Your task to perform on an android device: add a contact in the contacts app Image 0: 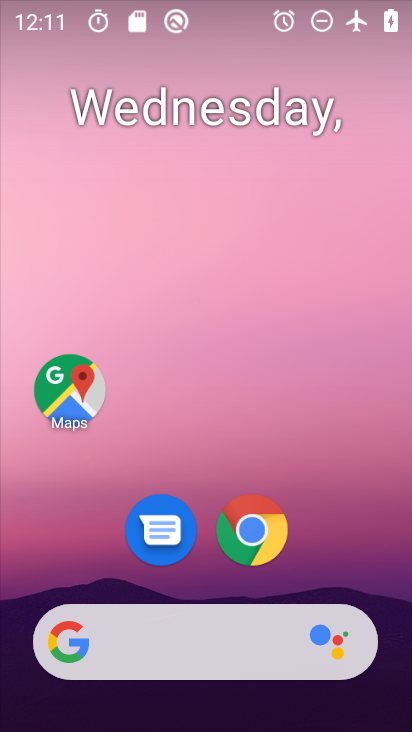
Step 0: drag from (322, 537) to (334, 59)
Your task to perform on an android device: add a contact in the contacts app Image 1: 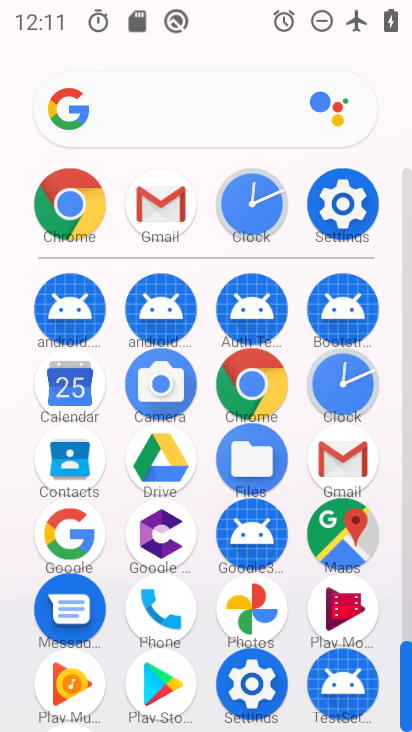
Step 1: click (74, 464)
Your task to perform on an android device: add a contact in the contacts app Image 2: 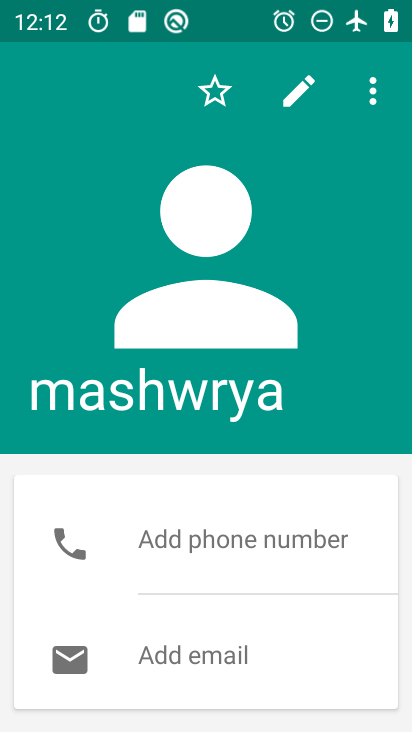
Step 2: press back button
Your task to perform on an android device: add a contact in the contacts app Image 3: 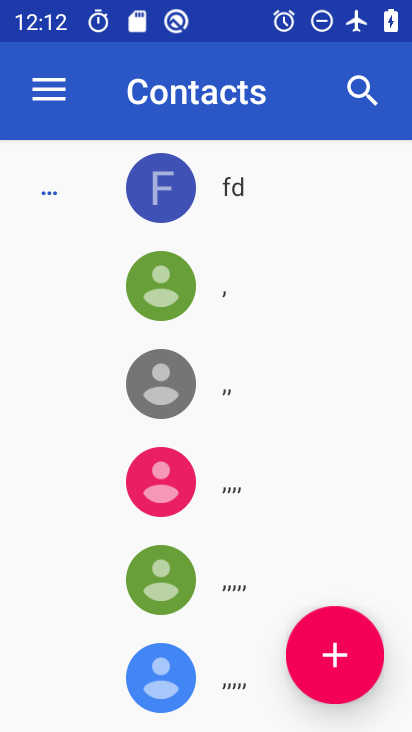
Step 3: click (311, 638)
Your task to perform on an android device: add a contact in the contacts app Image 4: 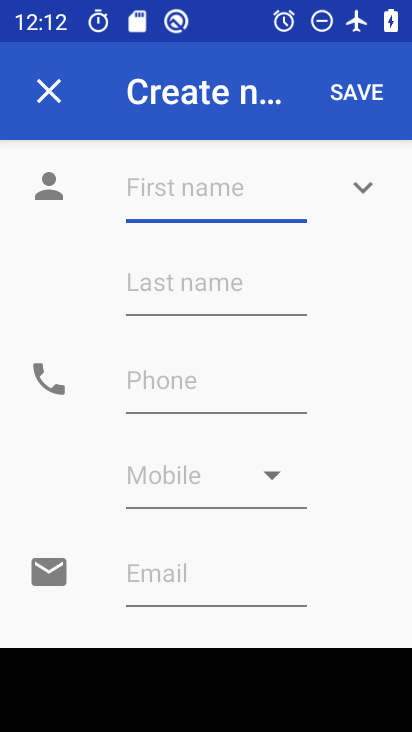
Step 4: type "jojjj"
Your task to perform on an android device: add a contact in the contacts app Image 5: 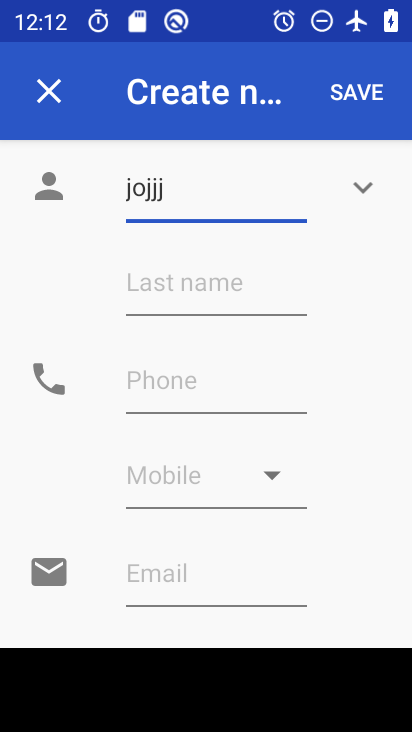
Step 5: click (365, 102)
Your task to perform on an android device: add a contact in the contacts app Image 6: 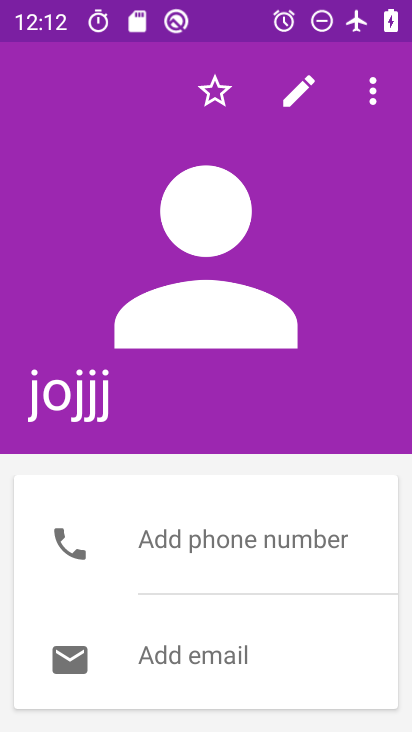
Step 6: task complete